Your task to perform on an android device: What's on my calendar tomorrow? Image 0: 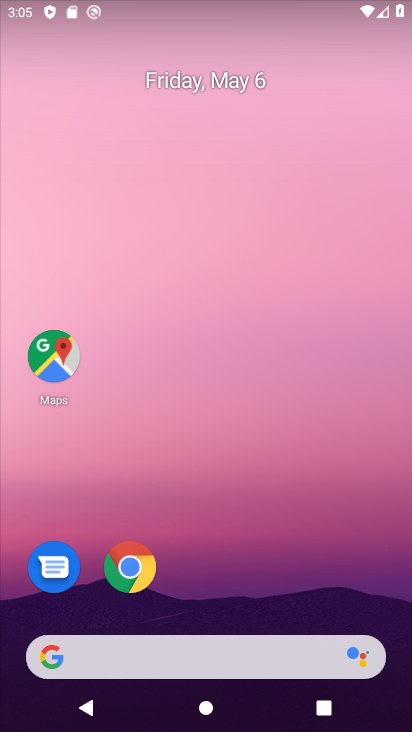
Step 0: drag from (166, 475) to (189, 170)
Your task to perform on an android device: What's on my calendar tomorrow? Image 1: 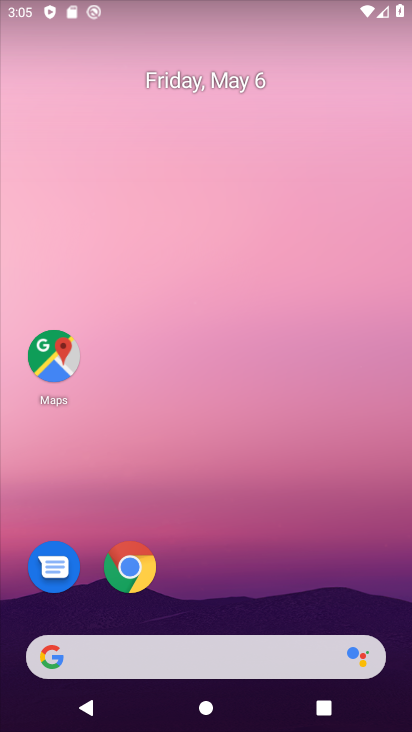
Step 1: drag from (136, 616) to (160, 92)
Your task to perform on an android device: What's on my calendar tomorrow? Image 2: 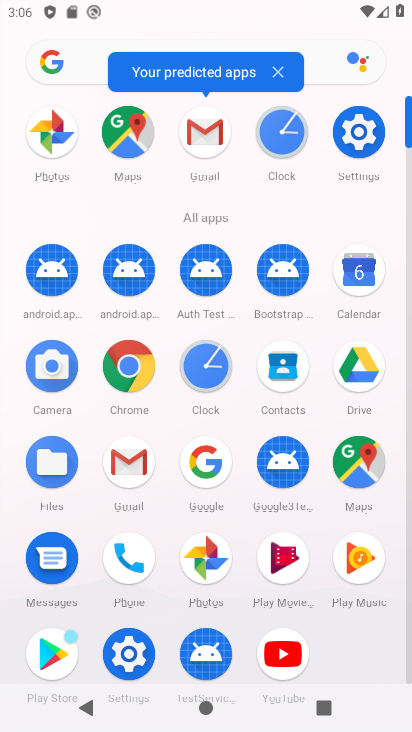
Step 2: click (355, 278)
Your task to perform on an android device: What's on my calendar tomorrow? Image 3: 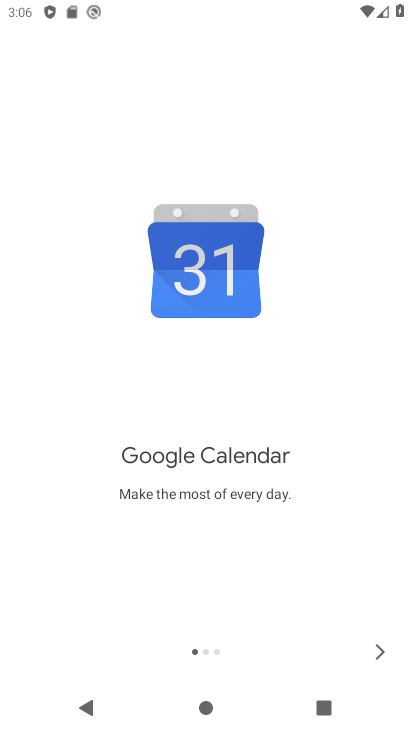
Step 3: click (372, 652)
Your task to perform on an android device: What's on my calendar tomorrow? Image 4: 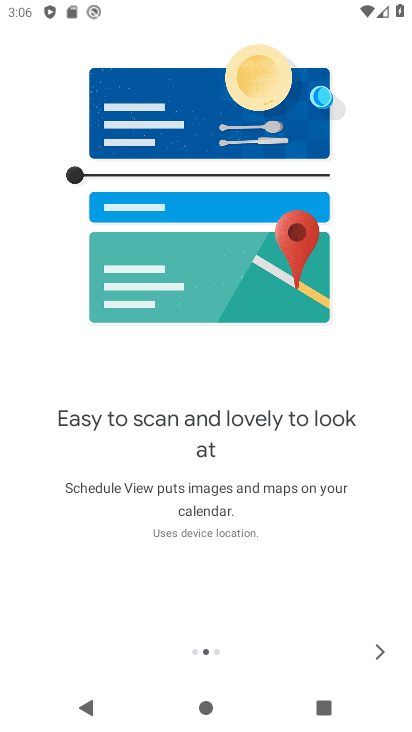
Step 4: click (374, 651)
Your task to perform on an android device: What's on my calendar tomorrow? Image 5: 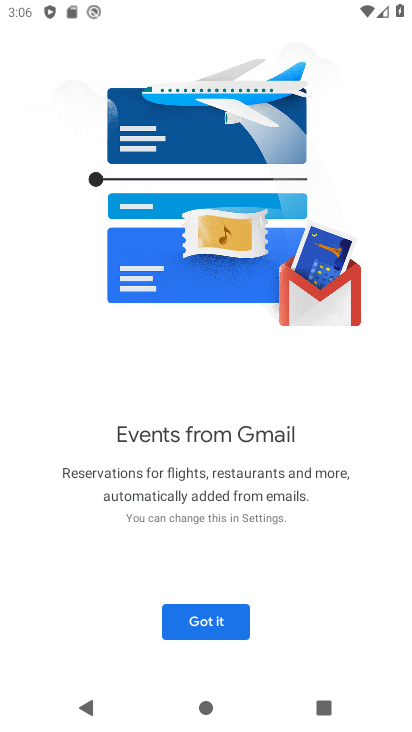
Step 5: click (177, 621)
Your task to perform on an android device: What's on my calendar tomorrow? Image 6: 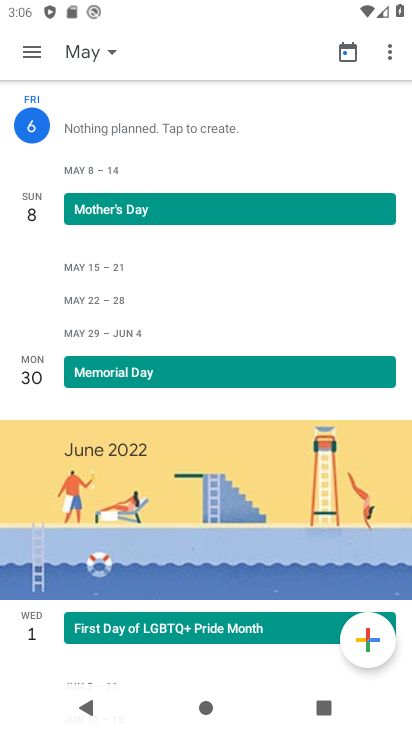
Step 6: click (98, 51)
Your task to perform on an android device: What's on my calendar tomorrow? Image 7: 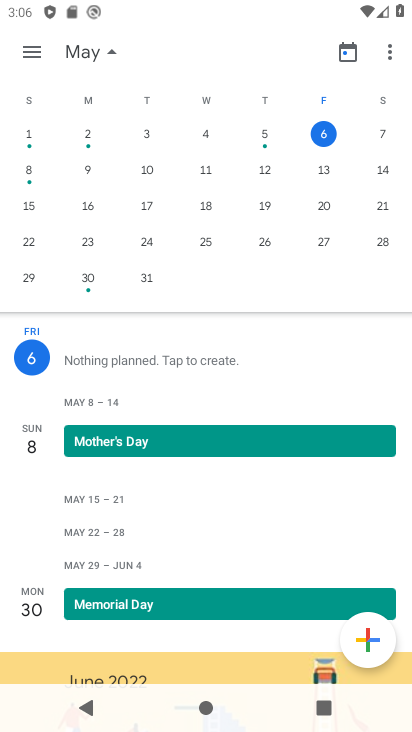
Step 7: click (368, 137)
Your task to perform on an android device: What's on my calendar tomorrow? Image 8: 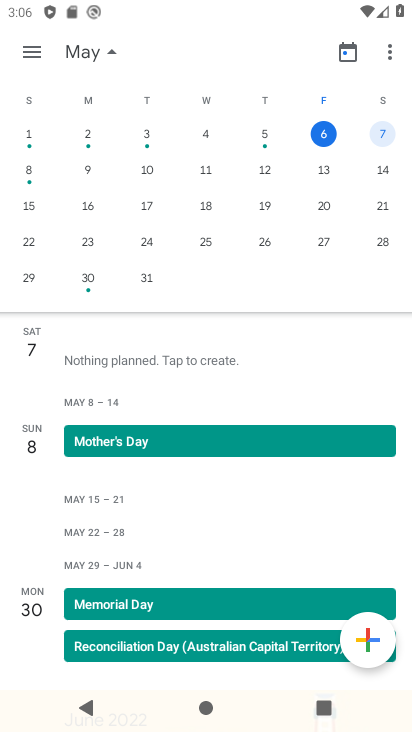
Step 8: task complete